Your task to perform on an android device: Clear the shopping cart on costco.com. Search for acer nitro on costco.com, select the first entry, and add it to the cart. Image 0: 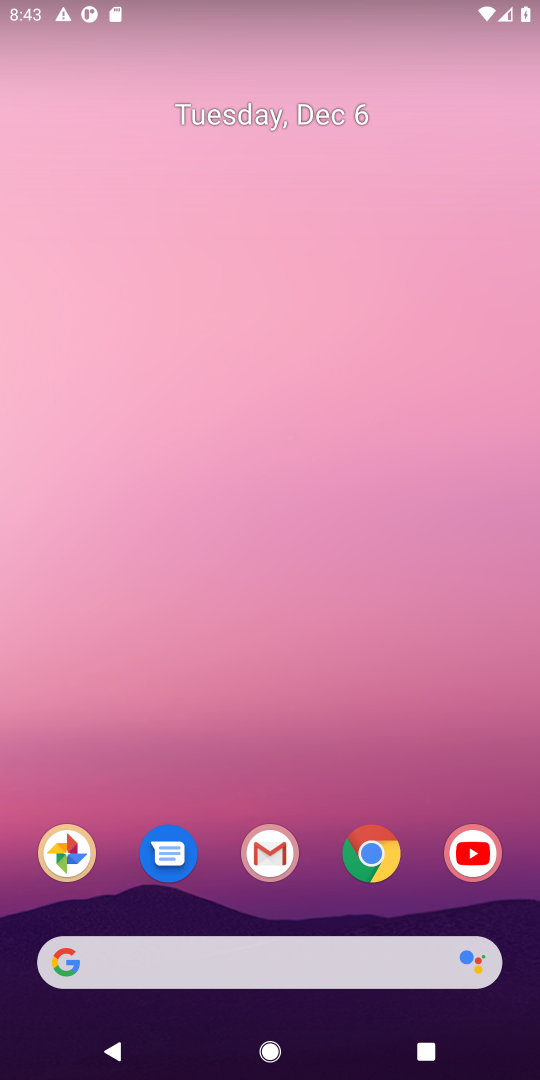
Step 0: drag from (293, 939) to (266, 241)
Your task to perform on an android device: Clear the shopping cart on costco.com. Search for acer nitro on costco.com, select the first entry, and add it to the cart. Image 1: 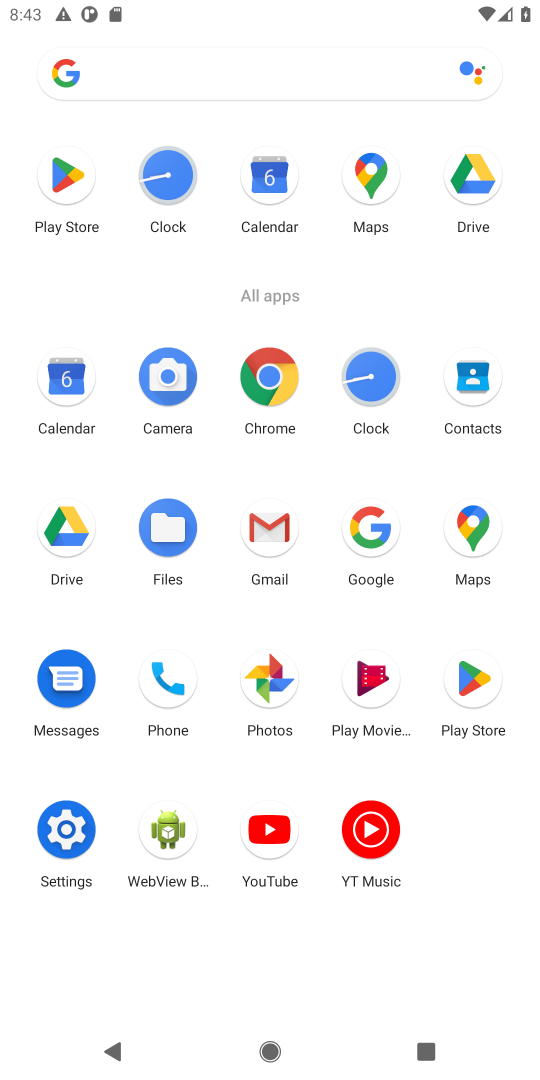
Step 1: click (369, 533)
Your task to perform on an android device: Clear the shopping cart on costco.com. Search for acer nitro on costco.com, select the first entry, and add it to the cart. Image 2: 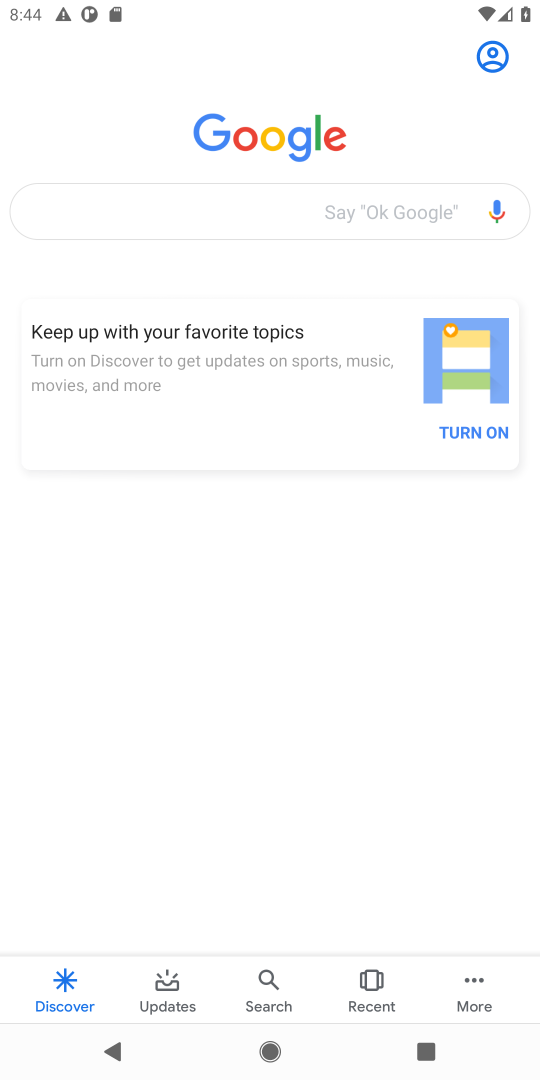
Step 2: click (156, 222)
Your task to perform on an android device: Clear the shopping cart on costco.com. Search for acer nitro on costco.com, select the first entry, and add it to the cart. Image 3: 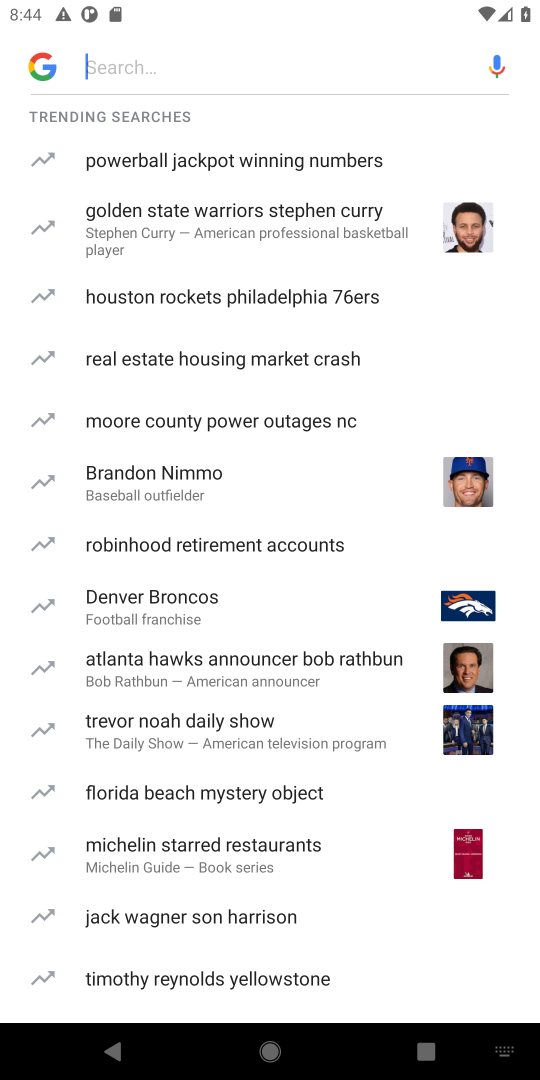
Step 3: type "costco.com"
Your task to perform on an android device: Clear the shopping cart on costco.com. Search for acer nitro on costco.com, select the first entry, and add it to the cart. Image 4: 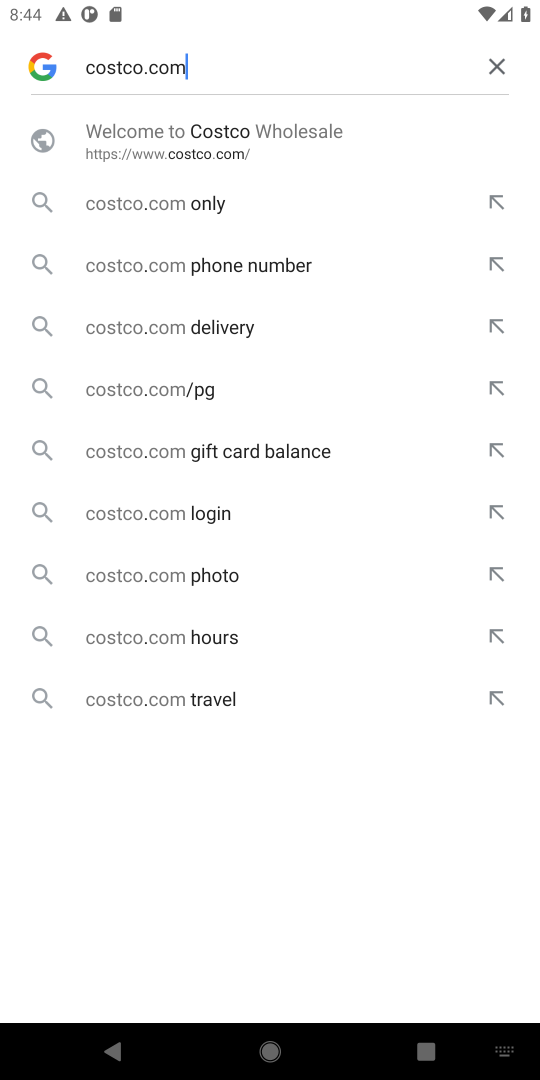
Step 4: click (178, 155)
Your task to perform on an android device: Clear the shopping cart on costco.com. Search for acer nitro on costco.com, select the first entry, and add it to the cart. Image 5: 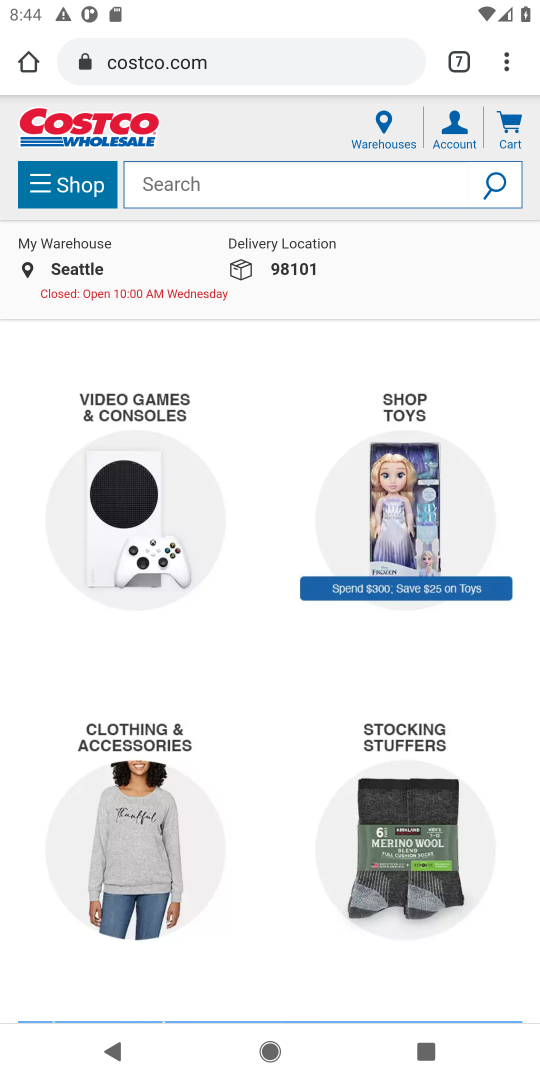
Step 5: click (192, 188)
Your task to perform on an android device: Clear the shopping cart on costco.com. Search for acer nitro on costco.com, select the first entry, and add it to the cart. Image 6: 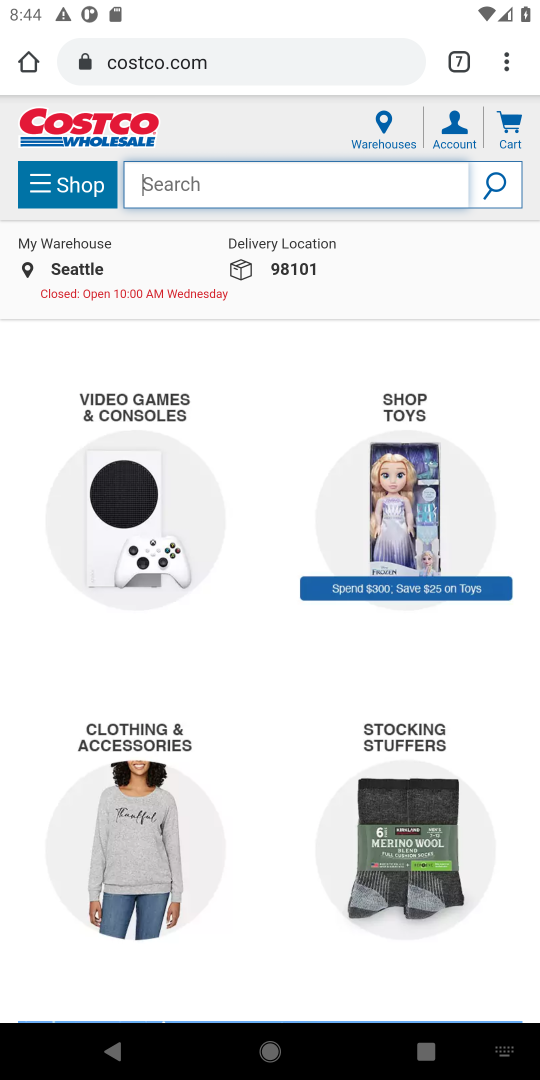
Step 6: type "acer nitro"
Your task to perform on an android device: Clear the shopping cart on costco.com. Search for acer nitro on costco.com, select the first entry, and add it to the cart. Image 7: 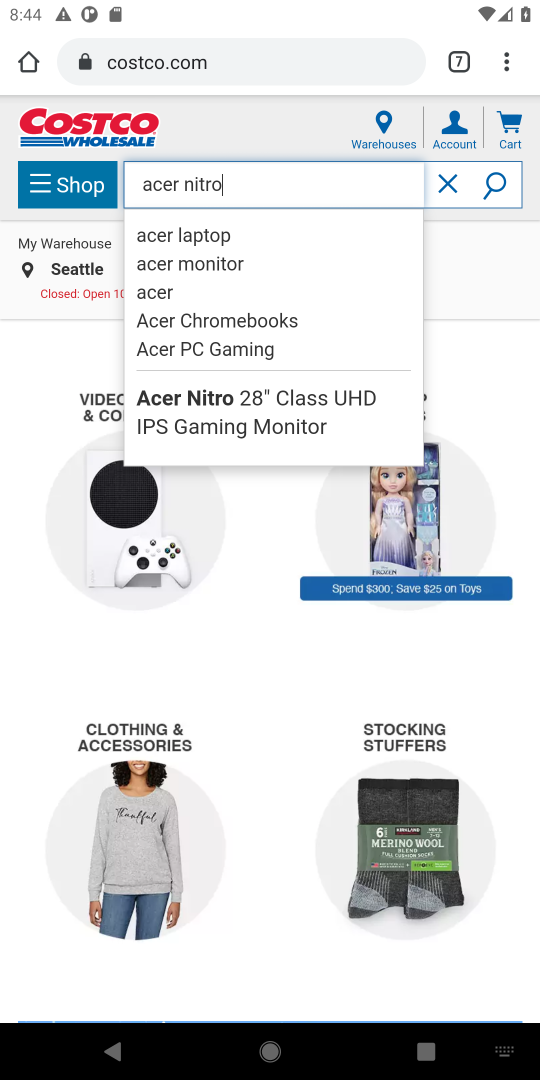
Step 7: click (492, 188)
Your task to perform on an android device: Clear the shopping cart on costco.com. Search for acer nitro on costco.com, select the first entry, and add it to the cart. Image 8: 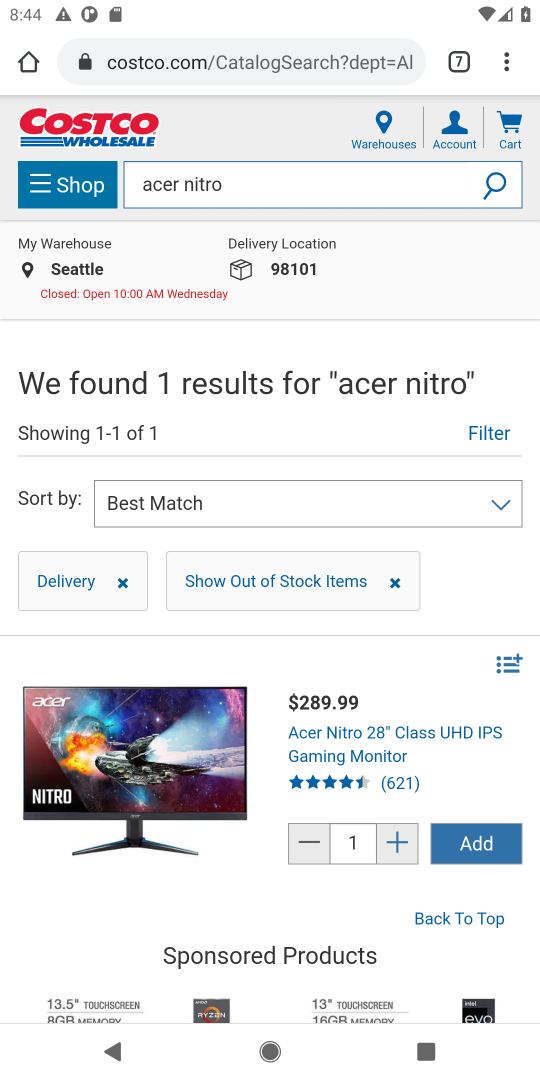
Step 8: click (476, 847)
Your task to perform on an android device: Clear the shopping cart on costco.com. Search for acer nitro on costco.com, select the first entry, and add it to the cart. Image 9: 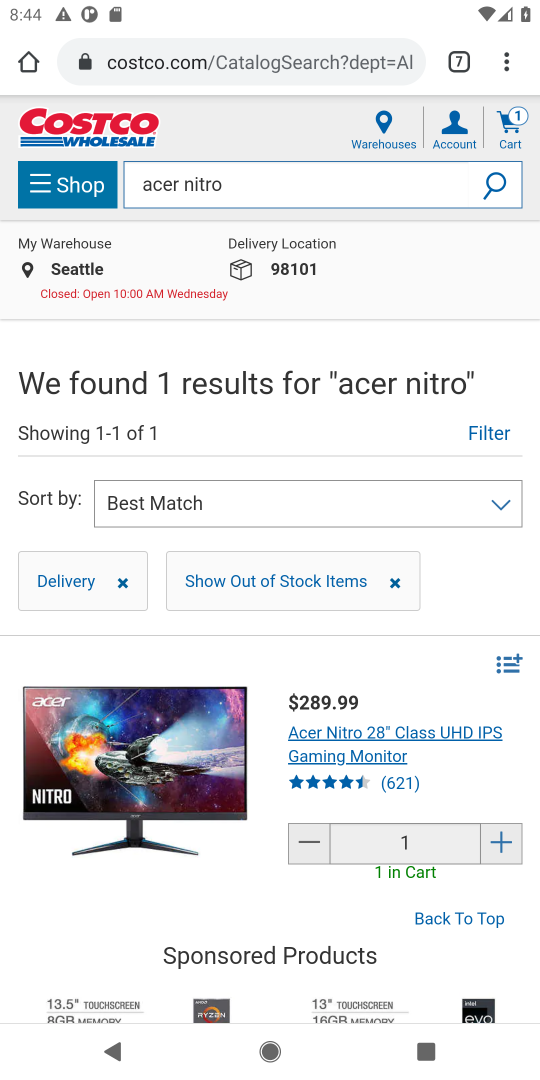
Step 9: click (522, 120)
Your task to perform on an android device: Clear the shopping cart on costco.com. Search for acer nitro on costco.com, select the first entry, and add it to the cart. Image 10: 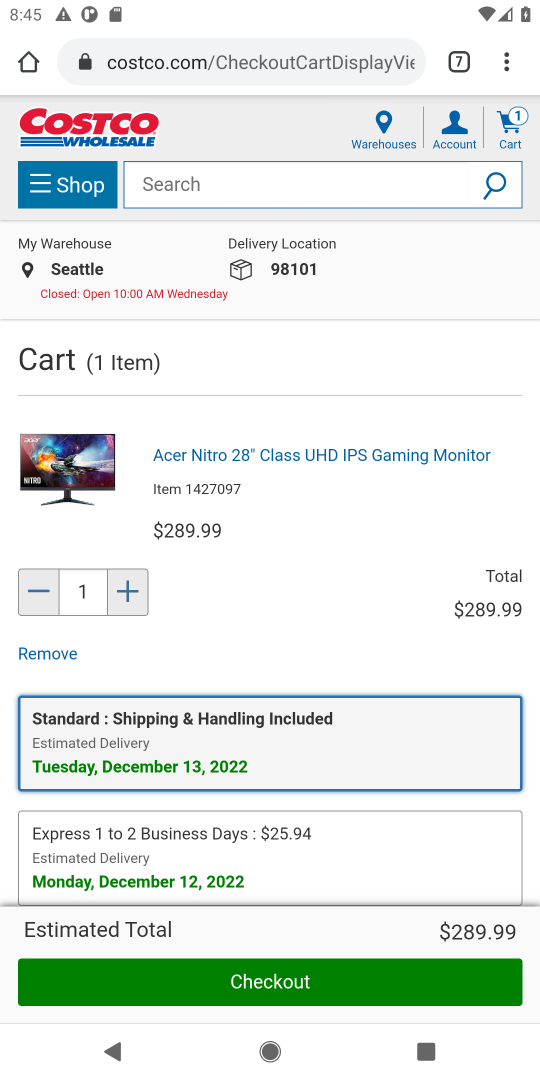
Step 10: task complete